Your task to perform on an android device: uninstall "Duolingo: language lessons" Image 0: 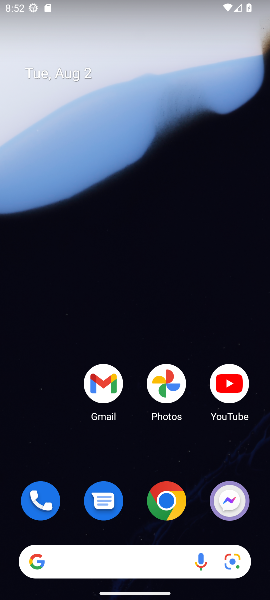
Step 0: drag from (116, 516) to (162, 154)
Your task to perform on an android device: uninstall "Duolingo: language lessons" Image 1: 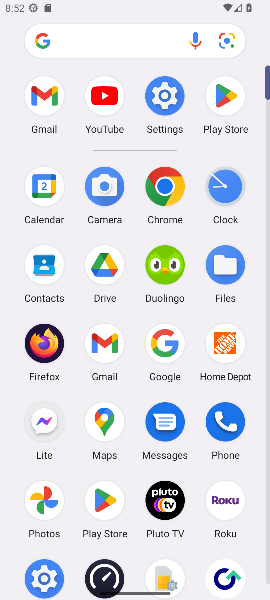
Step 1: click (229, 91)
Your task to perform on an android device: uninstall "Duolingo: language lessons" Image 2: 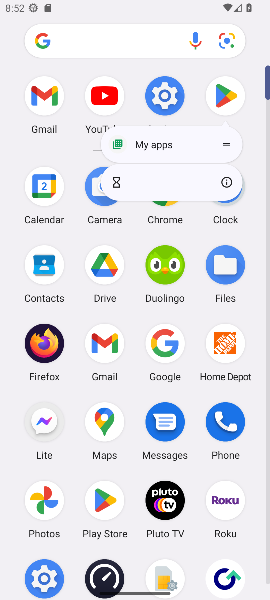
Step 2: click (224, 190)
Your task to perform on an android device: uninstall "Duolingo: language lessons" Image 3: 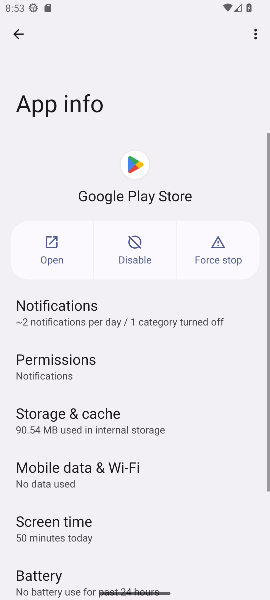
Step 3: click (52, 246)
Your task to perform on an android device: uninstall "Duolingo: language lessons" Image 4: 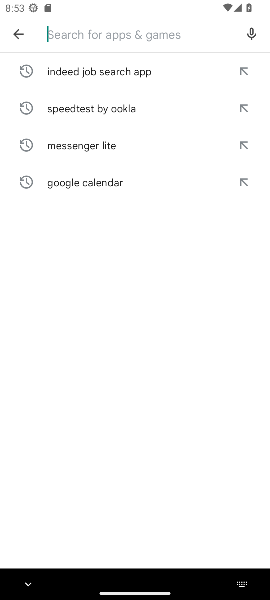
Step 4: click (75, 46)
Your task to perform on an android device: uninstall "Duolingo: language lessons" Image 5: 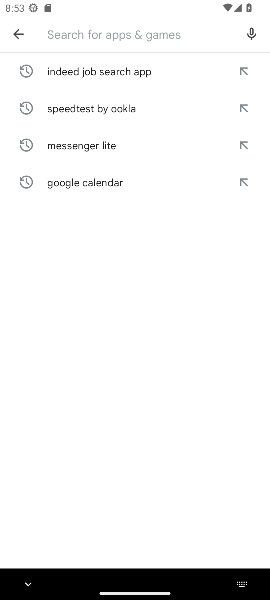
Step 5: type "Duolingo: language lessons"
Your task to perform on an android device: uninstall "Duolingo: language lessons" Image 6: 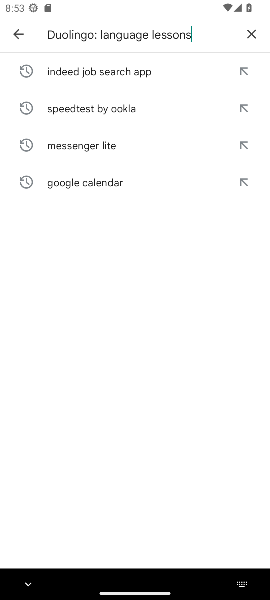
Step 6: type ""
Your task to perform on an android device: uninstall "Duolingo: language lessons" Image 7: 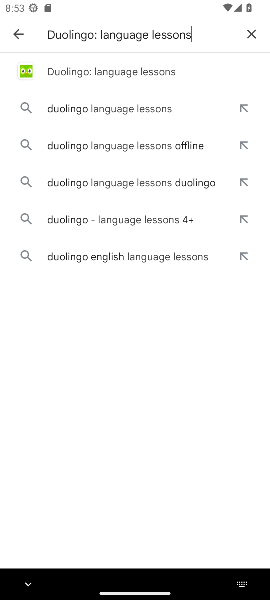
Step 7: click (136, 73)
Your task to perform on an android device: uninstall "Duolingo: language lessons" Image 8: 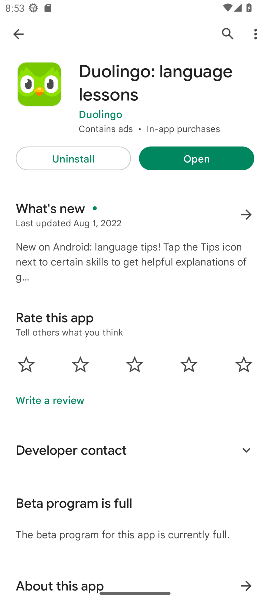
Step 8: click (72, 162)
Your task to perform on an android device: uninstall "Duolingo: language lessons" Image 9: 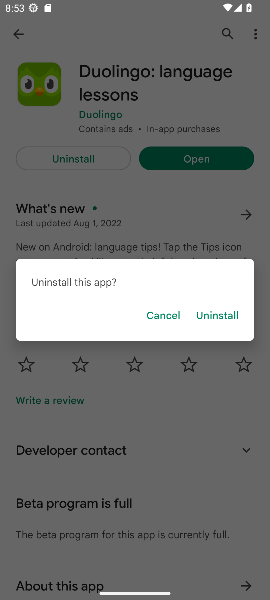
Step 9: click (213, 322)
Your task to perform on an android device: uninstall "Duolingo: language lessons" Image 10: 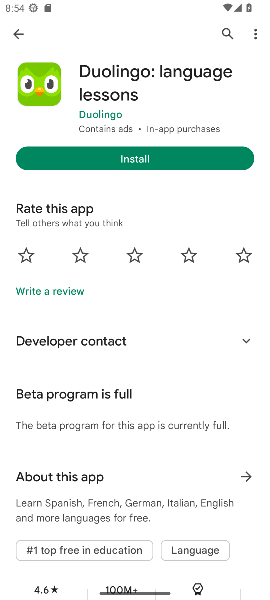
Step 10: task complete